Your task to perform on an android device: find photos in the google photos app Image 0: 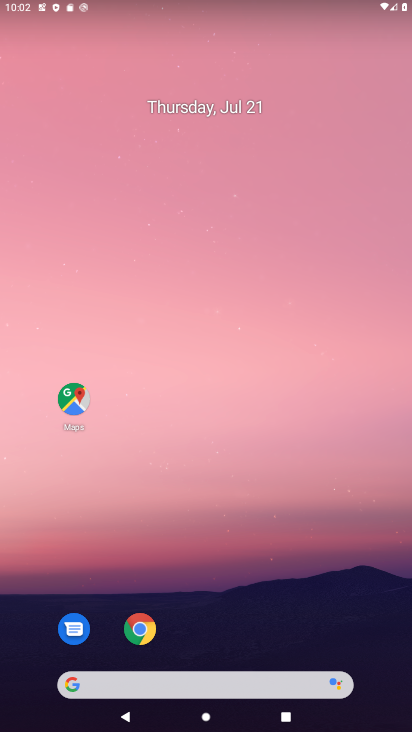
Step 0: press home button
Your task to perform on an android device: find photos in the google photos app Image 1: 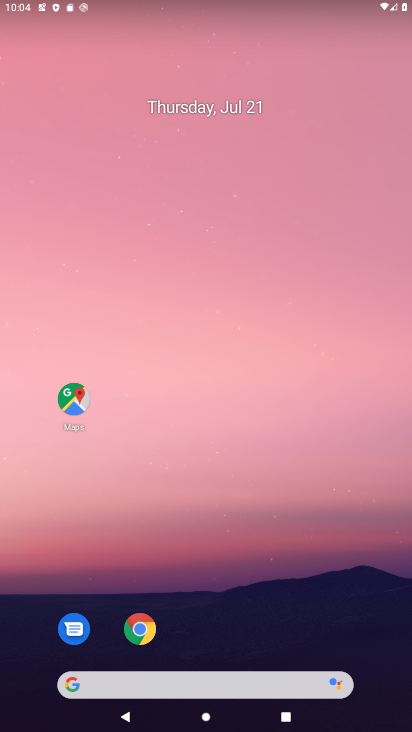
Step 1: drag from (144, 676) to (184, 8)
Your task to perform on an android device: find photos in the google photos app Image 2: 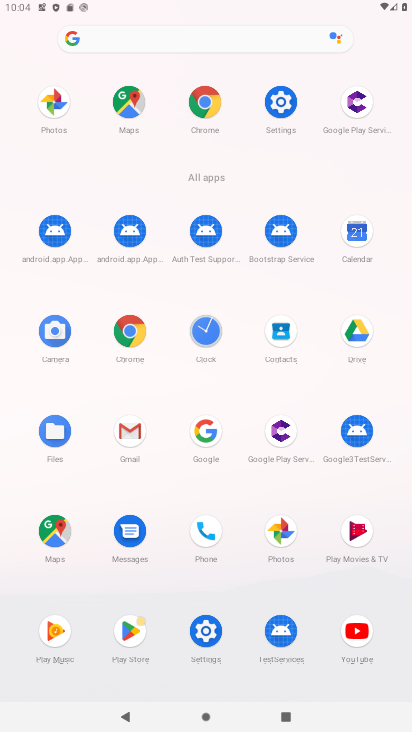
Step 2: click (295, 539)
Your task to perform on an android device: find photos in the google photos app Image 3: 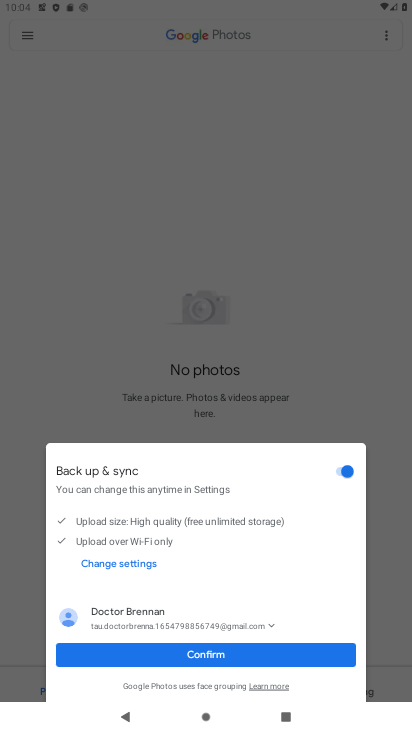
Step 3: click (210, 647)
Your task to perform on an android device: find photos in the google photos app Image 4: 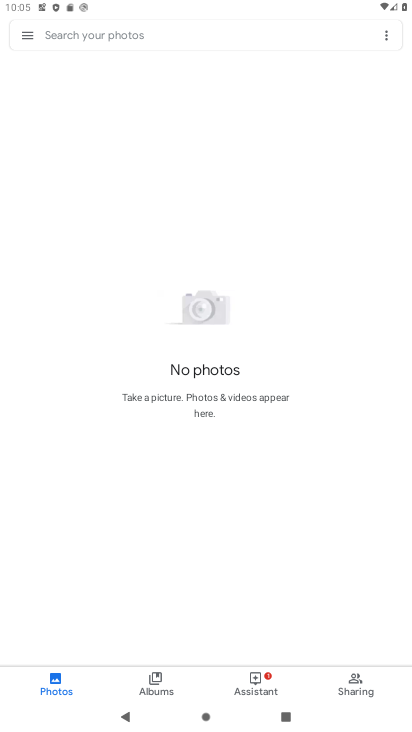
Step 4: task complete